Your task to perform on an android device: Open Chrome and go to settings Image 0: 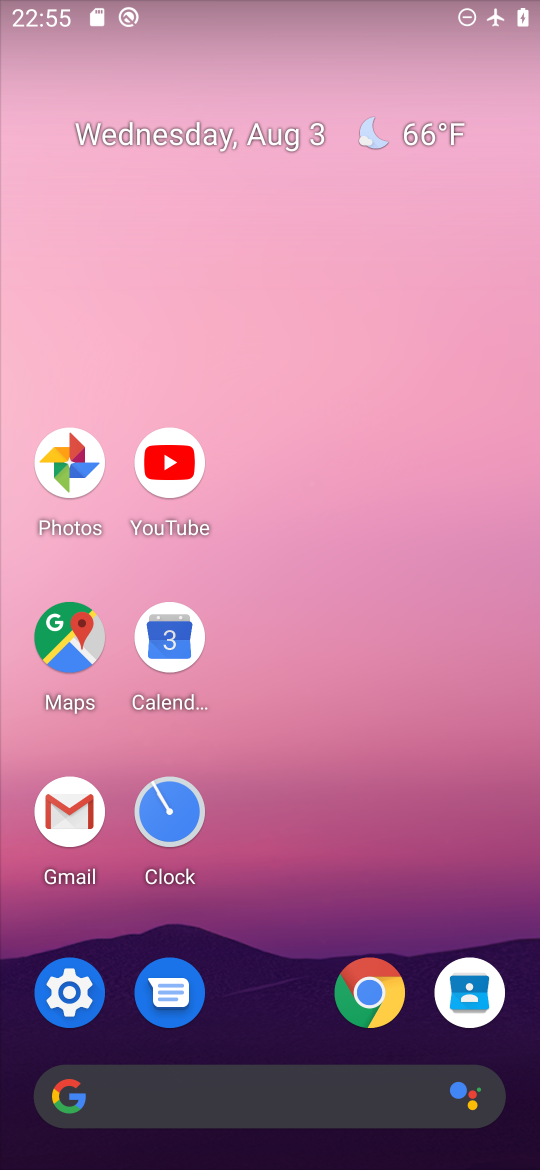
Step 0: click (382, 989)
Your task to perform on an android device: Open Chrome and go to settings Image 1: 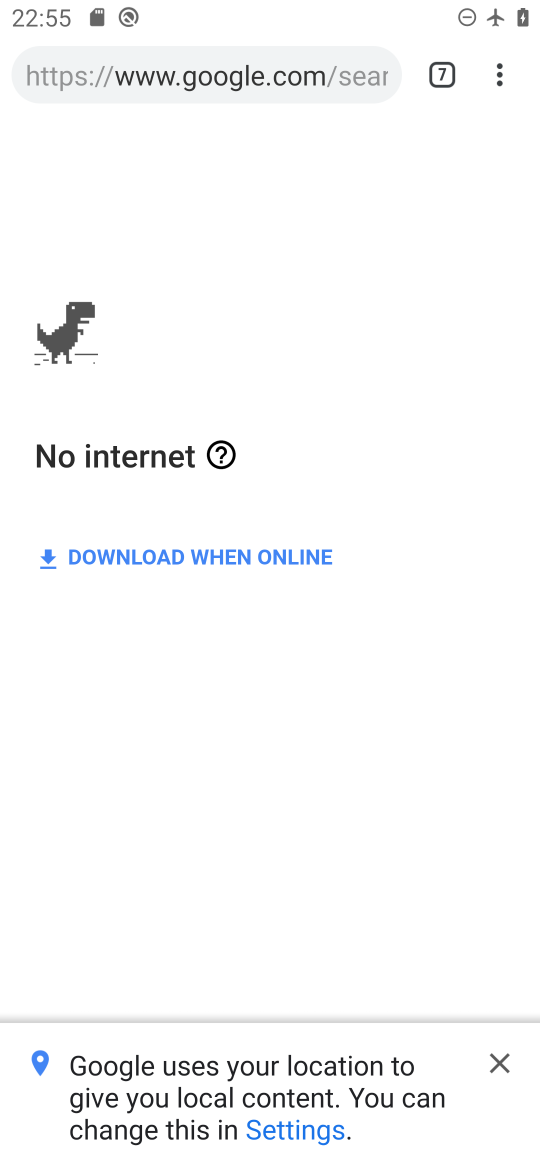
Step 1: click (510, 70)
Your task to perform on an android device: Open Chrome and go to settings Image 2: 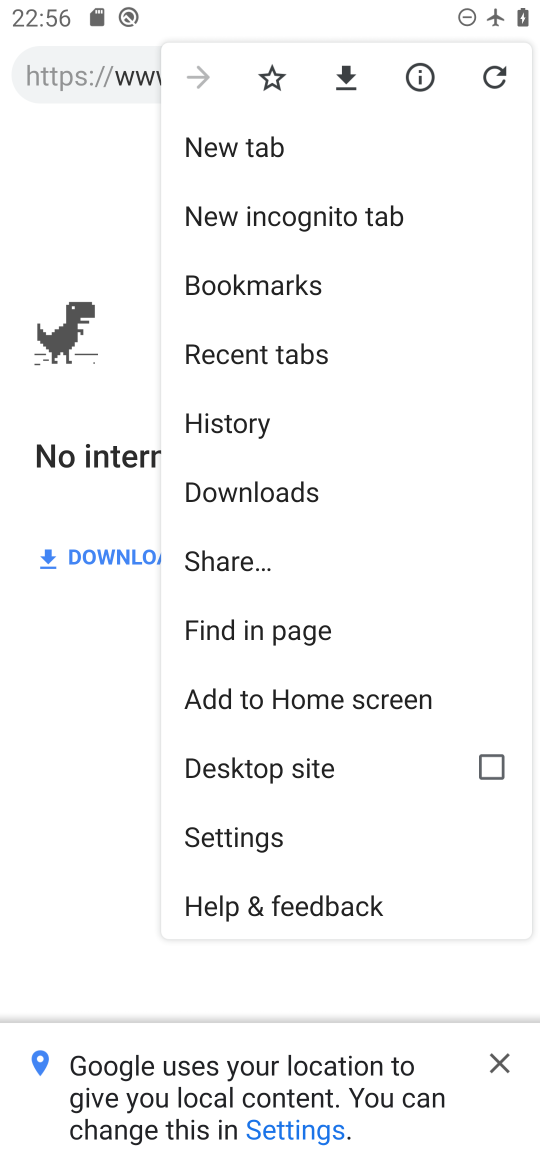
Step 2: click (232, 837)
Your task to perform on an android device: Open Chrome and go to settings Image 3: 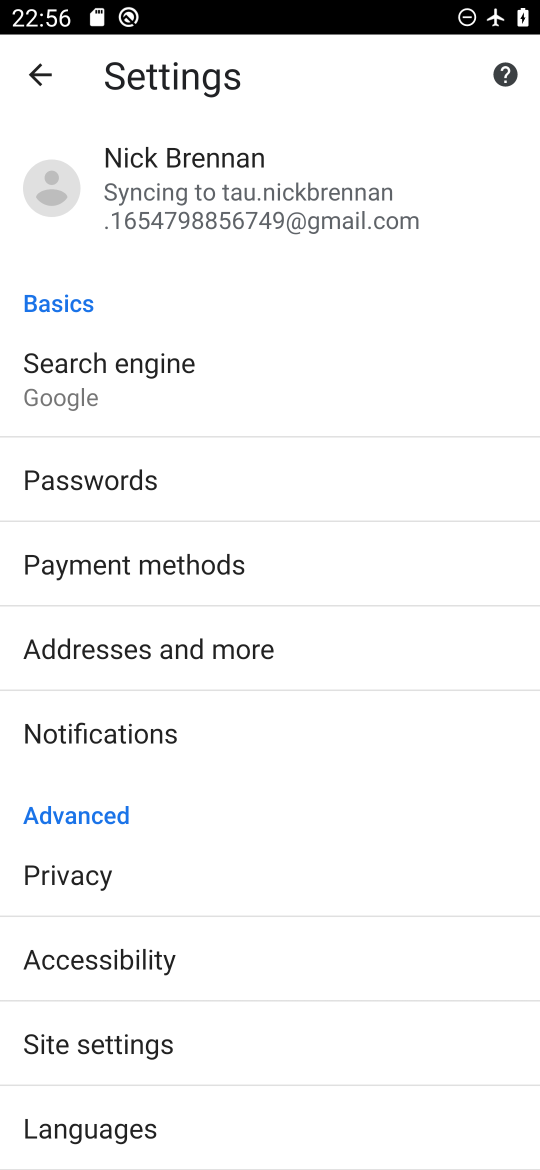
Step 3: task complete